Your task to perform on an android device: Go to Reddit.com Image 0: 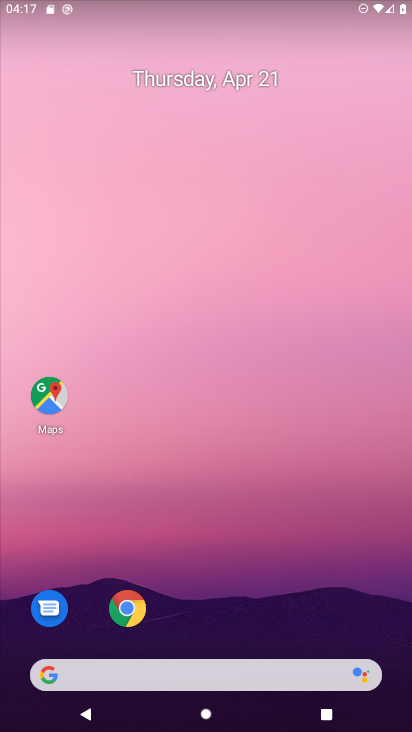
Step 0: click (269, 277)
Your task to perform on an android device: Go to Reddit.com Image 1: 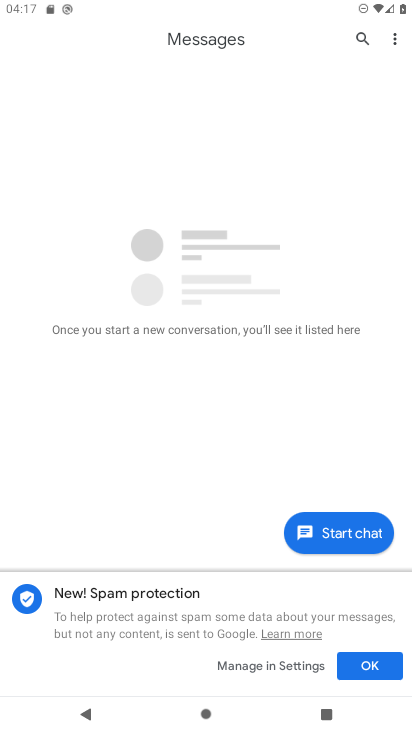
Step 1: press home button
Your task to perform on an android device: Go to Reddit.com Image 2: 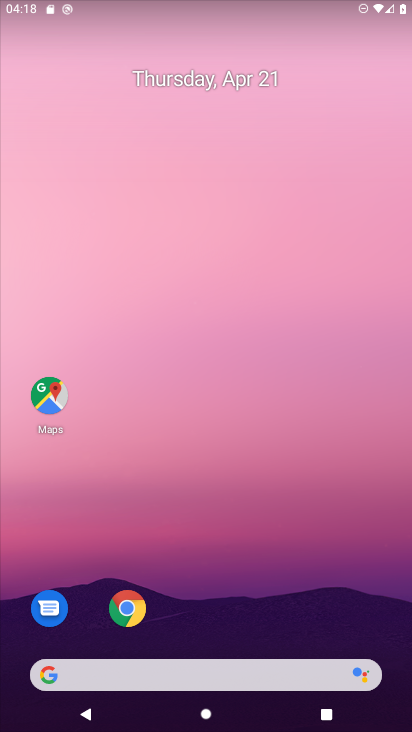
Step 2: drag from (221, 604) to (182, 189)
Your task to perform on an android device: Go to Reddit.com Image 3: 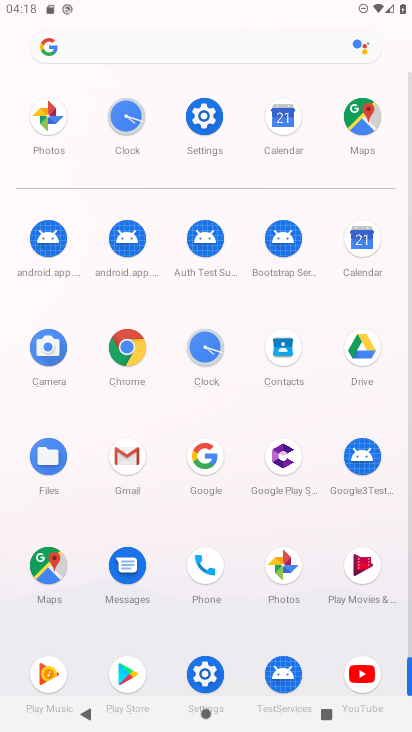
Step 3: click (132, 342)
Your task to perform on an android device: Go to Reddit.com Image 4: 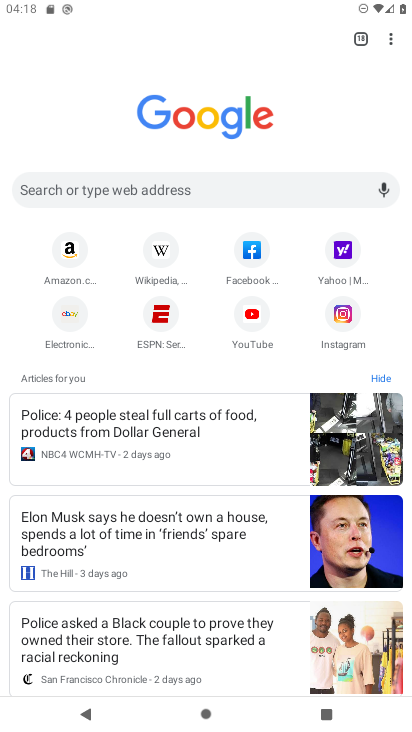
Step 4: click (241, 174)
Your task to perform on an android device: Go to Reddit.com Image 5: 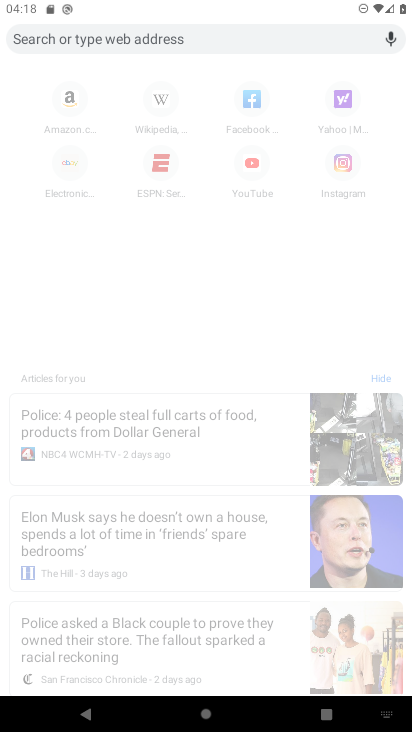
Step 5: type " Reddit.com"
Your task to perform on an android device: Go to Reddit.com Image 6: 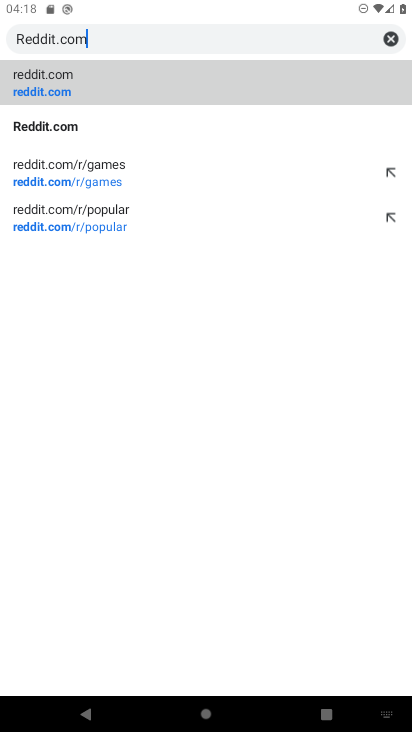
Step 6: click (90, 131)
Your task to perform on an android device: Go to Reddit.com Image 7: 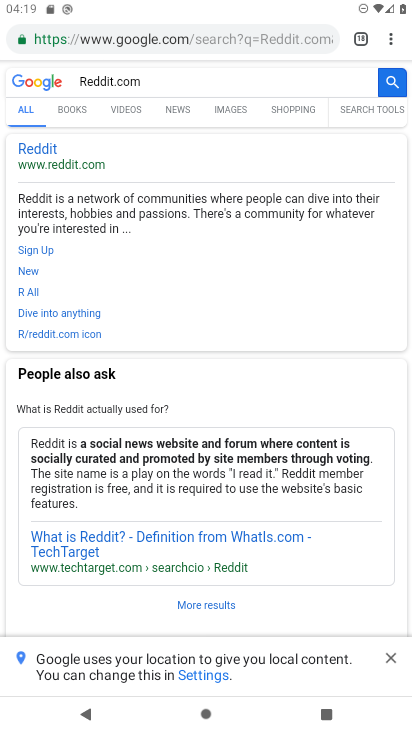
Step 7: task complete